Your task to perform on an android device: change timer sound Image 0: 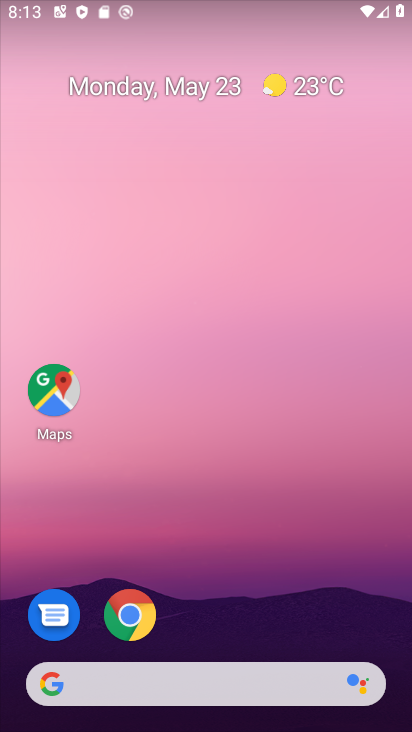
Step 0: drag from (253, 599) to (213, 47)
Your task to perform on an android device: change timer sound Image 1: 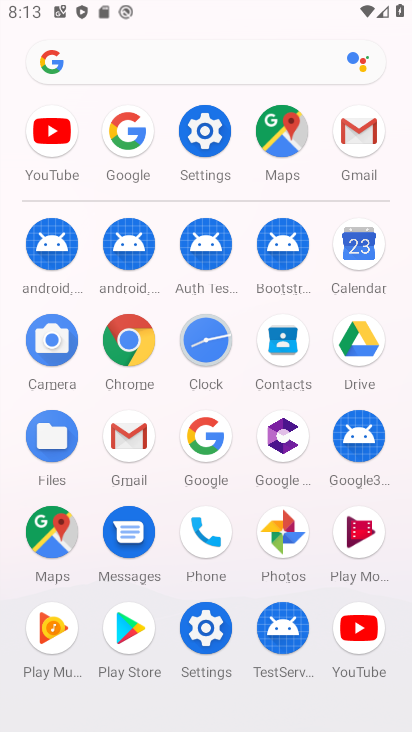
Step 1: click (207, 340)
Your task to perform on an android device: change timer sound Image 2: 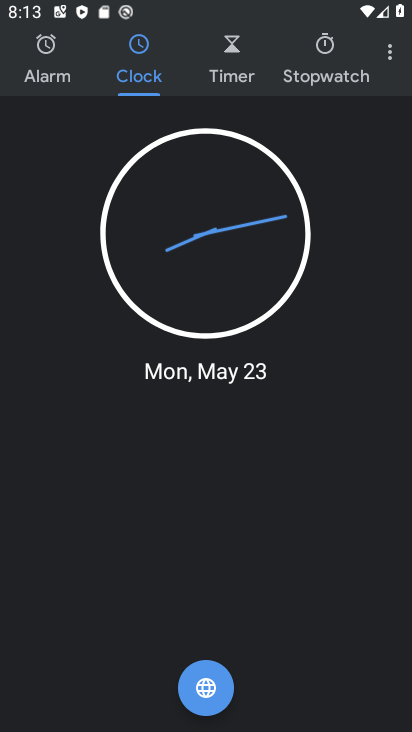
Step 2: click (391, 54)
Your task to perform on an android device: change timer sound Image 3: 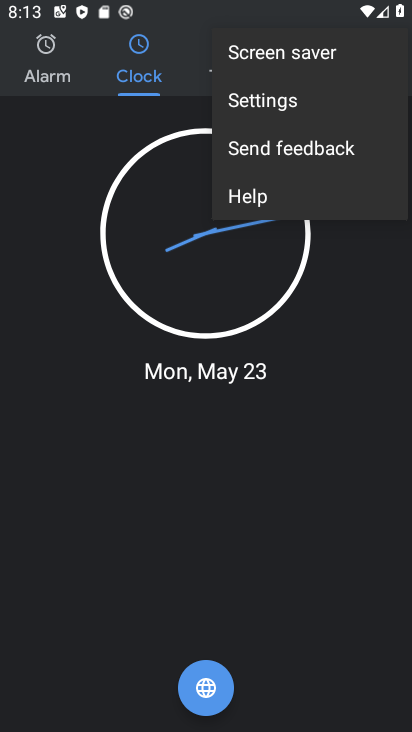
Step 3: click (268, 102)
Your task to perform on an android device: change timer sound Image 4: 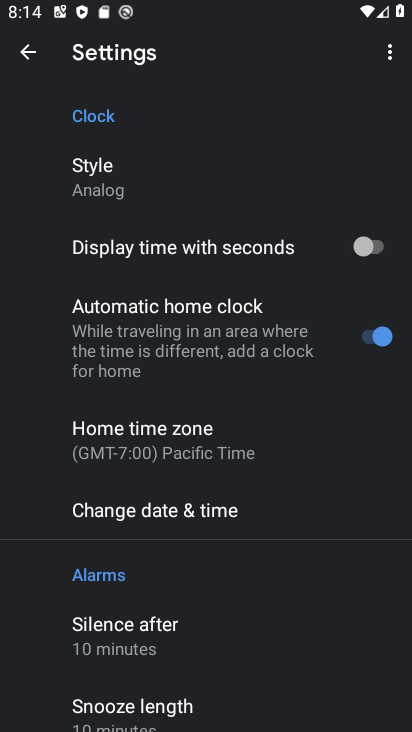
Step 4: drag from (233, 390) to (230, 286)
Your task to perform on an android device: change timer sound Image 5: 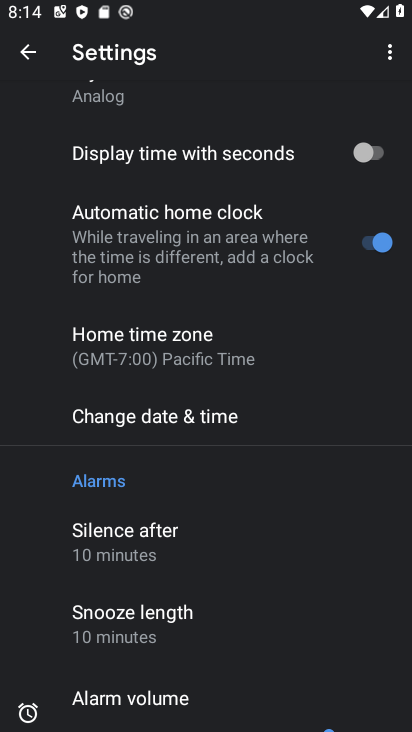
Step 5: drag from (170, 463) to (198, 350)
Your task to perform on an android device: change timer sound Image 6: 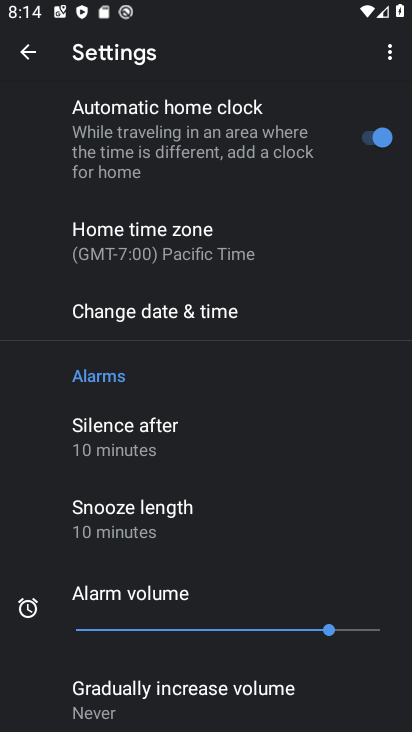
Step 6: drag from (228, 552) to (230, 417)
Your task to perform on an android device: change timer sound Image 7: 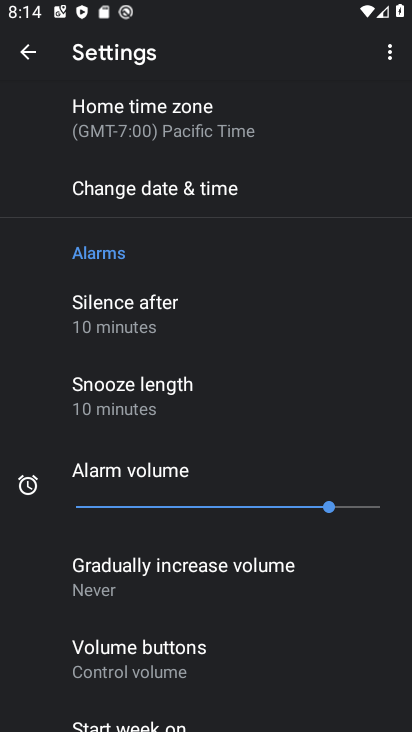
Step 7: drag from (177, 565) to (200, 457)
Your task to perform on an android device: change timer sound Image 8: 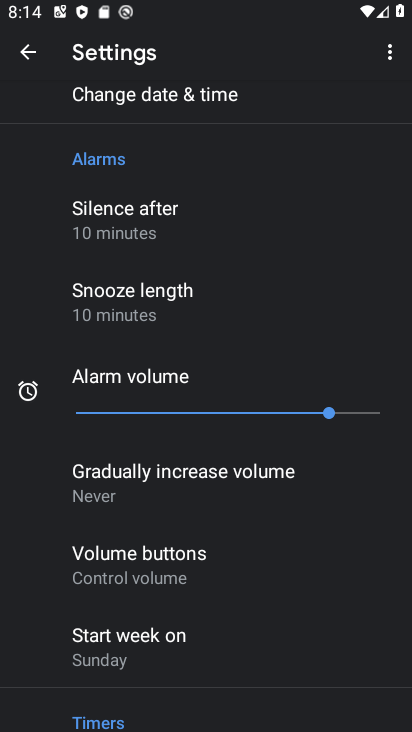
Step 8: drag from (239, 595) to (261, 405)
Your task to perform on an android device: change timer sound Image 9: 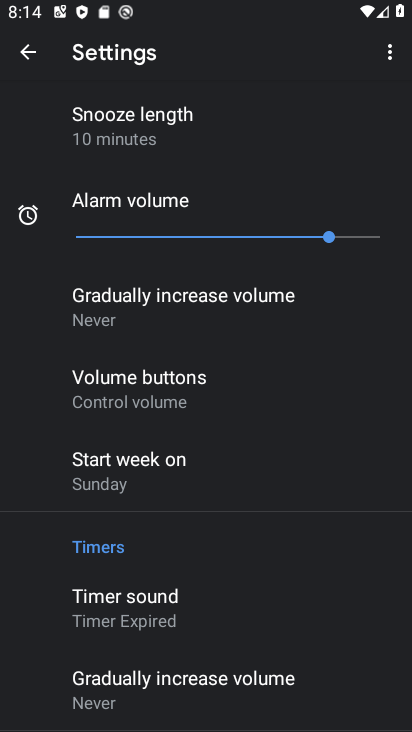
Step 9: click (105, 623)
Your task to perform on an android device: change timer sound Image 10: 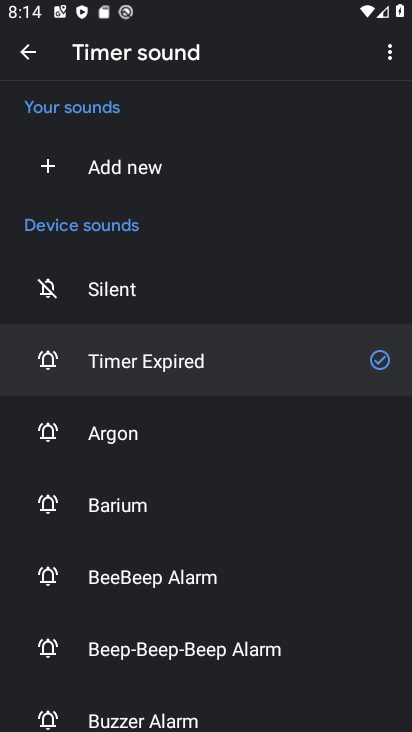
Step 10: drag from (155, 615) to (214, 493)
Your task to perform on an android device: change timer sound Image 11: 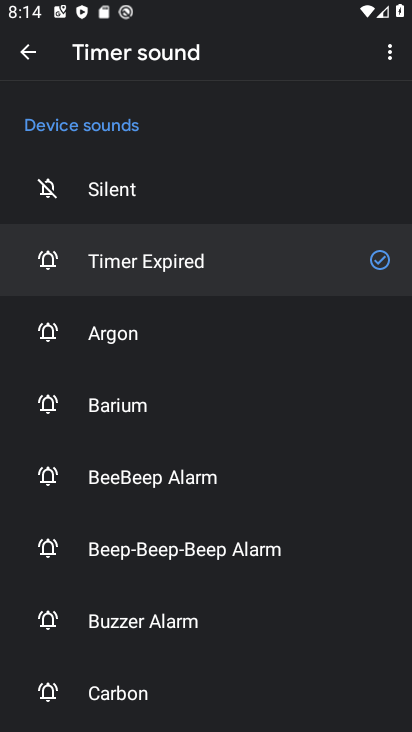
Step 11: click (158, 612)
Your task to perform on an android device: change timer sound Image 12: 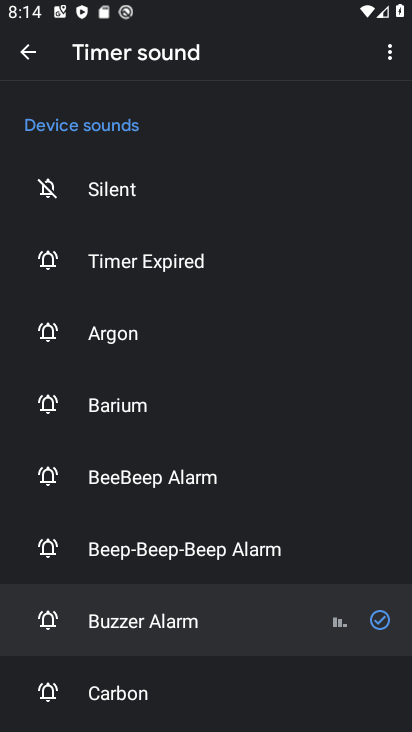
Step 12: task complete